Your task to perform on an android device: open a bookmark in the chrome app Image 0: 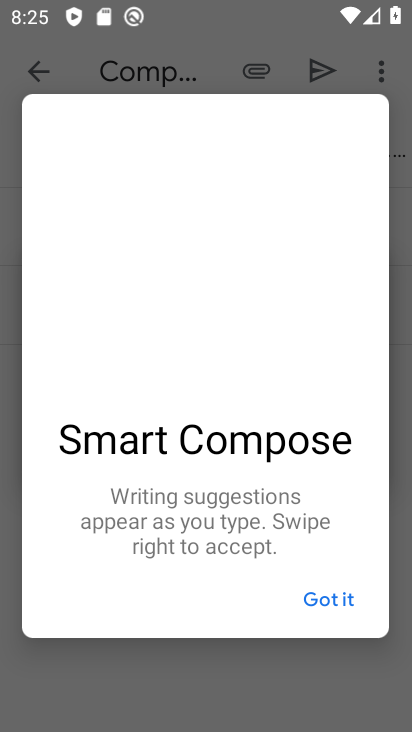
Step 0: press home button
Your task to perform on an android device: open a bookmark in the chrome app Image 1: 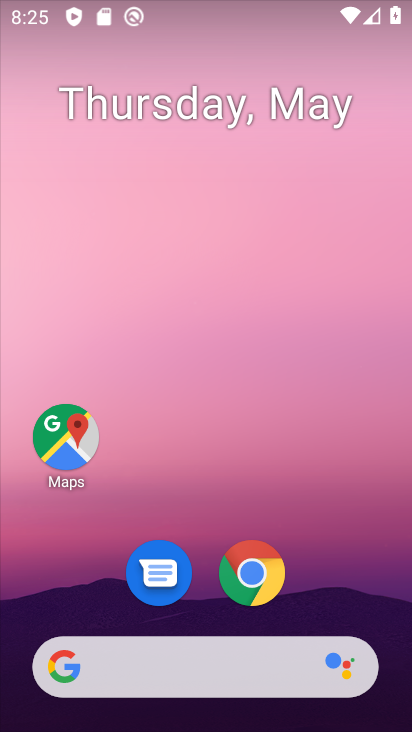
Step 1: click (263, 594)
Your task to perform on an android device: open a bookmark in the chrome app Image 2: 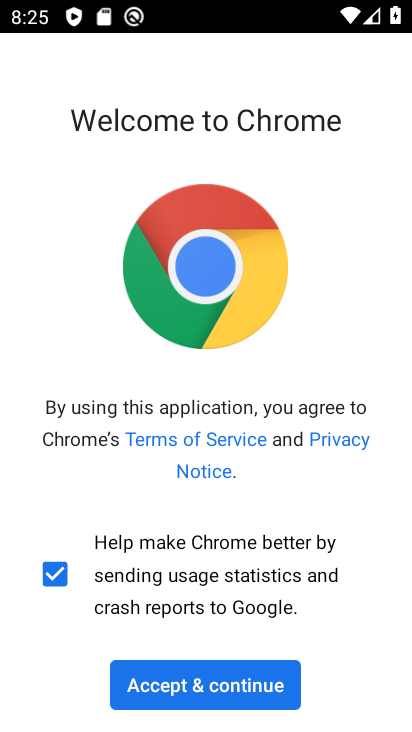
Step 2: click (183, 681)
Your task to perform on an android device: open a bookmark in the chrome app Image 3: 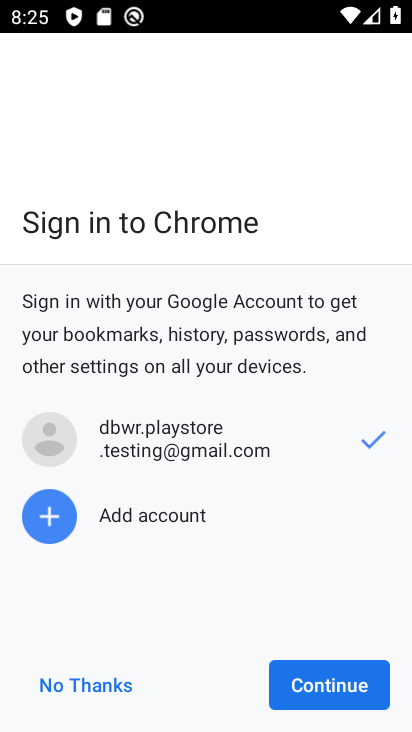
Step 3: click (320, 694)
Your task to perform on an android device: open a bookmark in the chrome app Image 4: 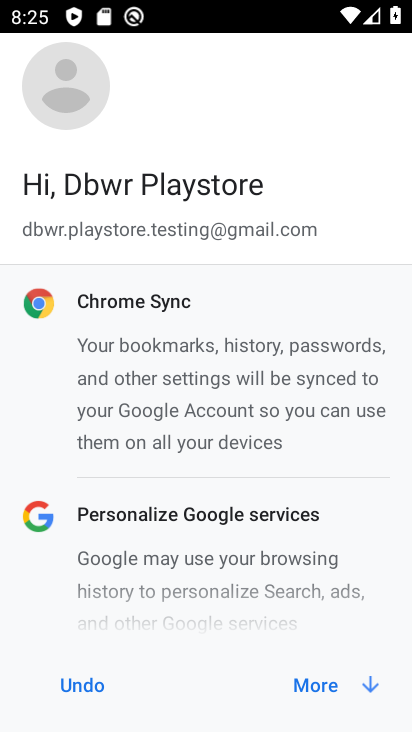
Step 4: click (345, 679)
Your task to perform on an android device: open a bookmark in the chrome app Image 5: 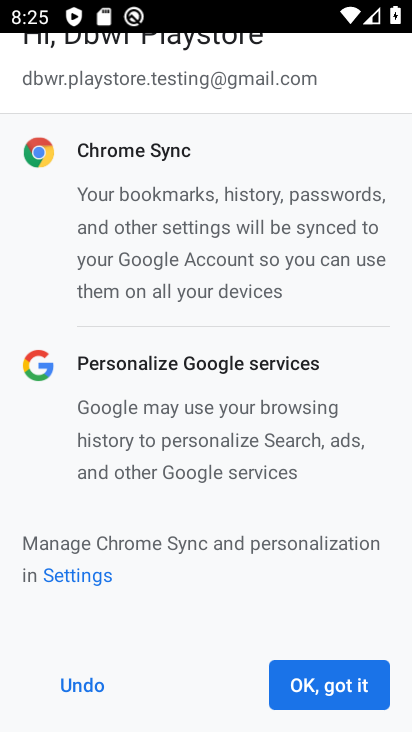
Step 5: drag from (301, 314) to (323, 542)
Your task to perform on an android device: open a bookmark in the chrome app Image 6: 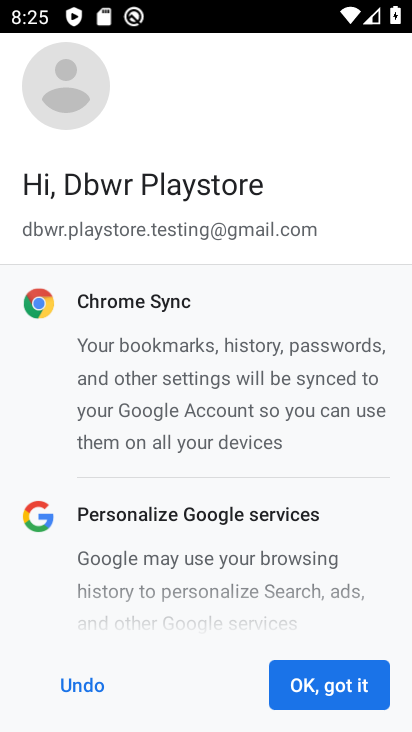
Step 6: click (303, 412)
Your task to perform on an android device: open a bookmark in the chrome app Image 7: 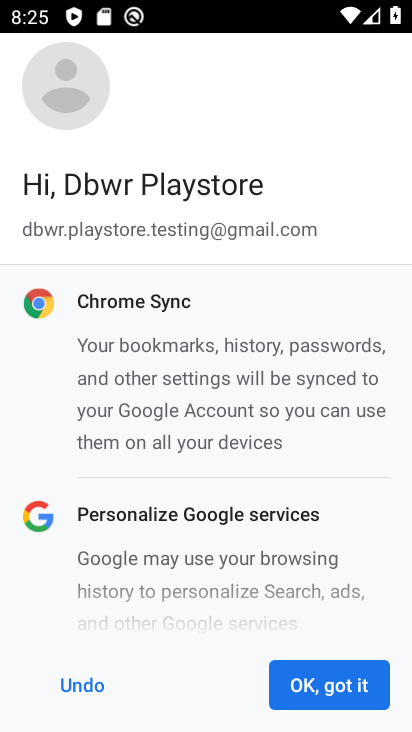
Step 7: click (327, 674)
Your task to perform on an android device: open a bookmark in the chrome app Image 8: 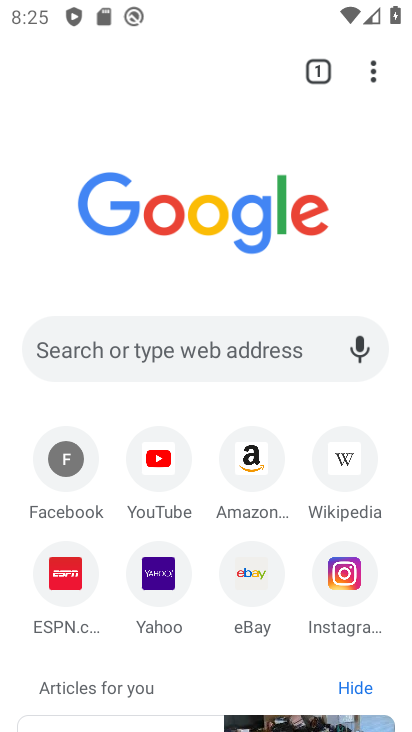
Step 8: drag from (371, 77) to (188, 263)
Your task to perform on an android device: open a bookmark in the chrome app Image 9: 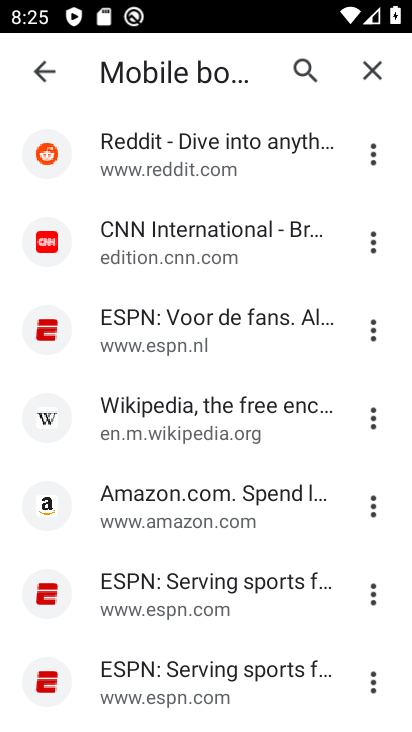
Step 9: click (266, 326)
Your task to perform on an android device: open a bookmark in the chrome app Image 10: 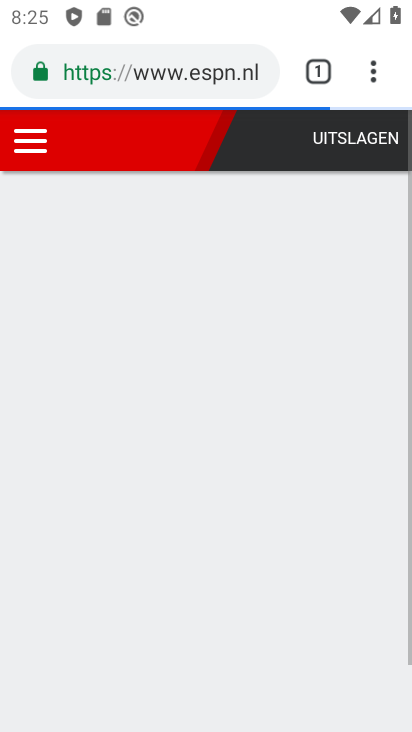
Step 10: task complete